Your task to perform on an android device: Open the map Image 0: 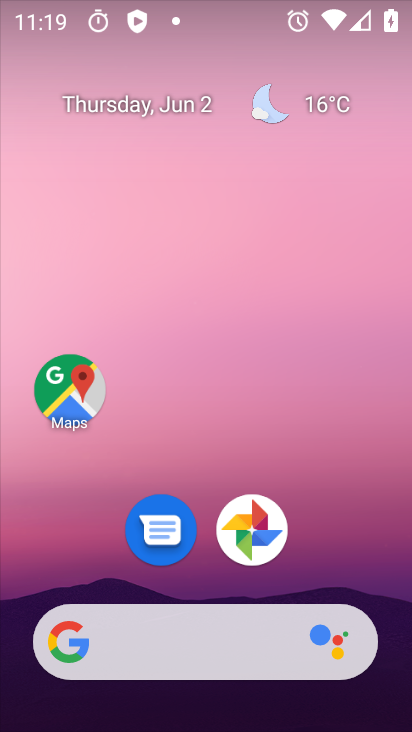
Step 0: drag from (249, 682) to (158, 143)
Your task to perform on an android device: Open the map Image 1: 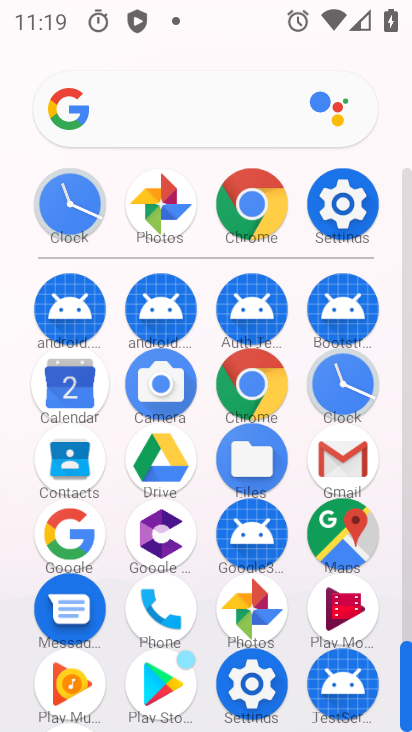
Step 1: click (328, 520)
Your task to perform on an android device: Open the map Image 2: 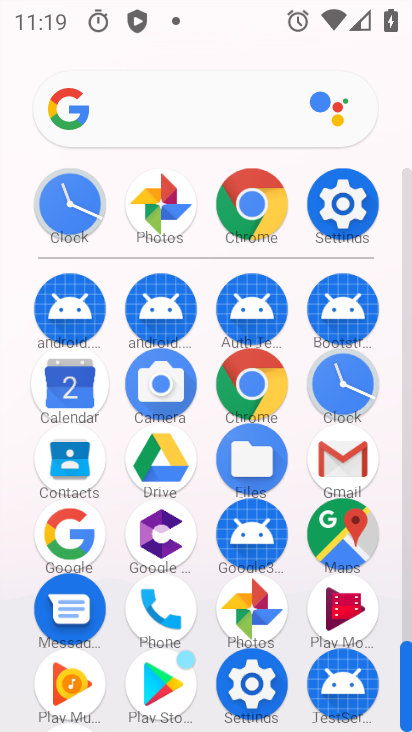
Step 2: click (328, 520)
Your task to perform on an android device: Open the map Image 3: 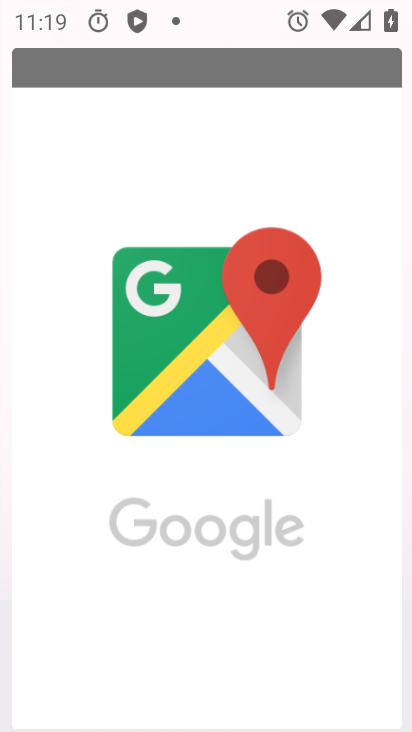
Step 3: click (321, 525)
Your task to perform on an android device: Open the map Image 4: 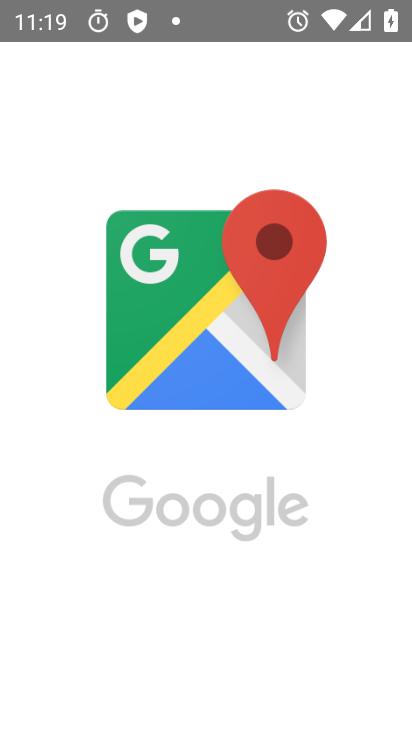
Step 4: click (321, 525)
Your task to perform on an android device: Open the map Image 5: 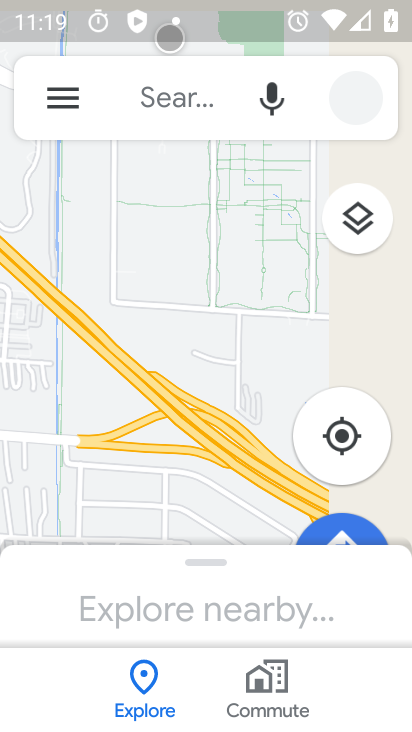
Step 5: task complete